Your task to perform on an android device: allow cookies in the chrome app Image 0: 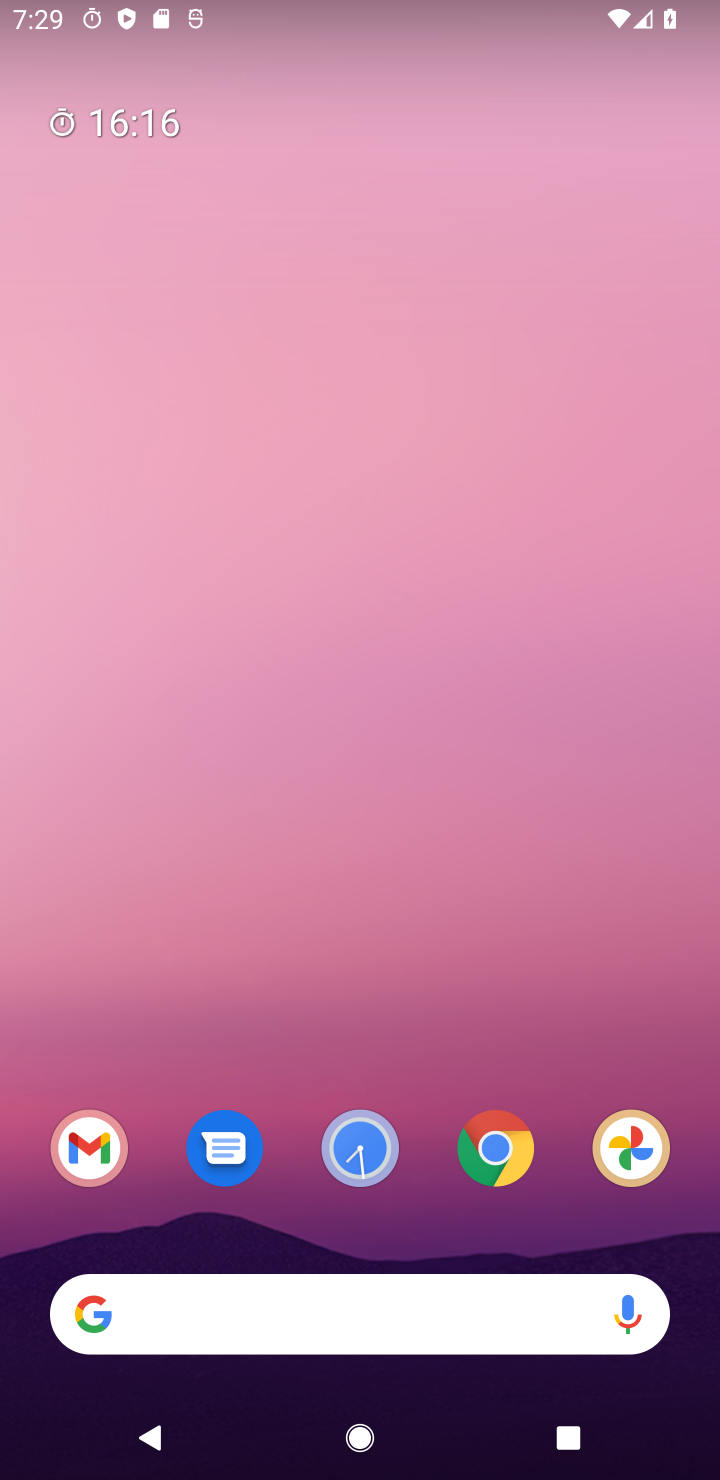
Step 0: press home button
Your task to perform on an android device: allow cookies in the chrome app Image 1: 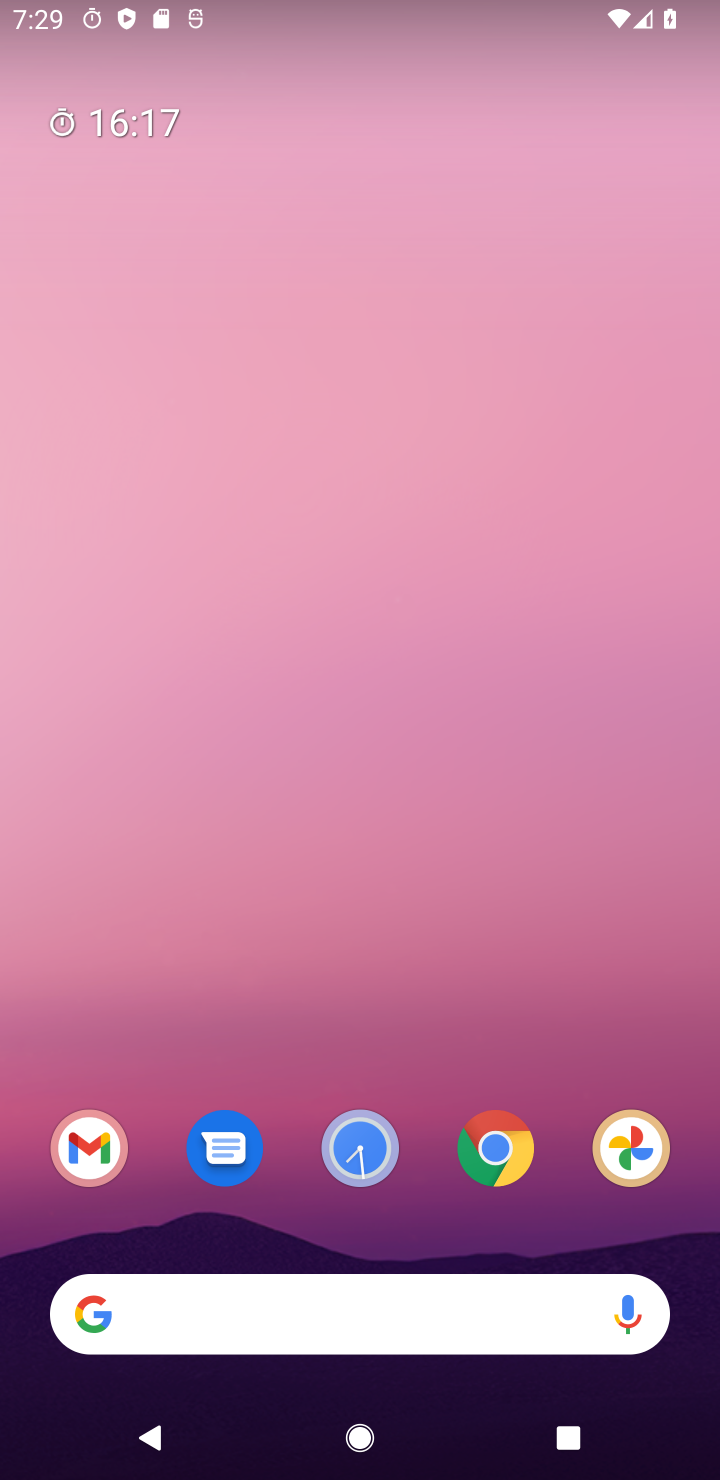
Step 1: drag from (362, 891) to (238, 271)
Your task to perform on an android device: allow cookies in the chrome app Image 2: 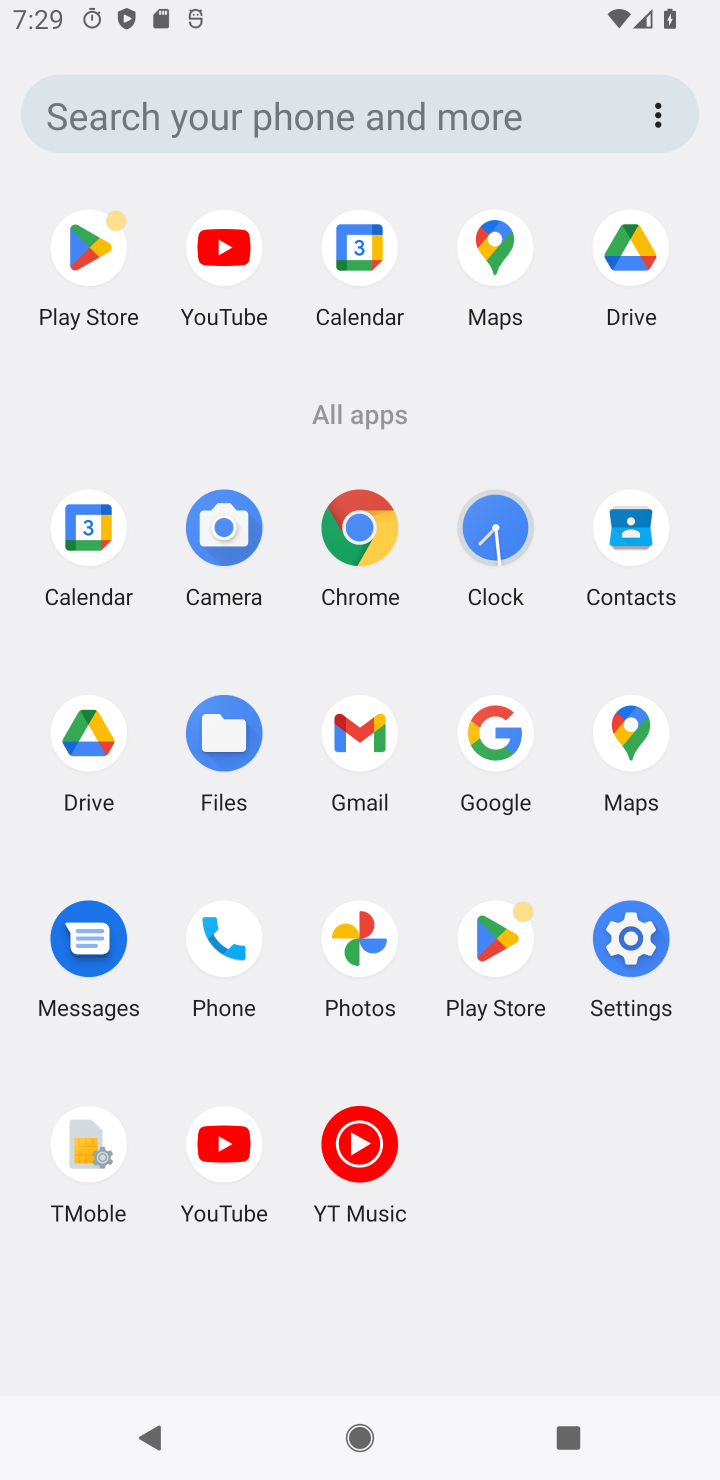
Step 2: click (354, 563)
Your task to perform on an android device: allow cookies in the chrome app Image 3: 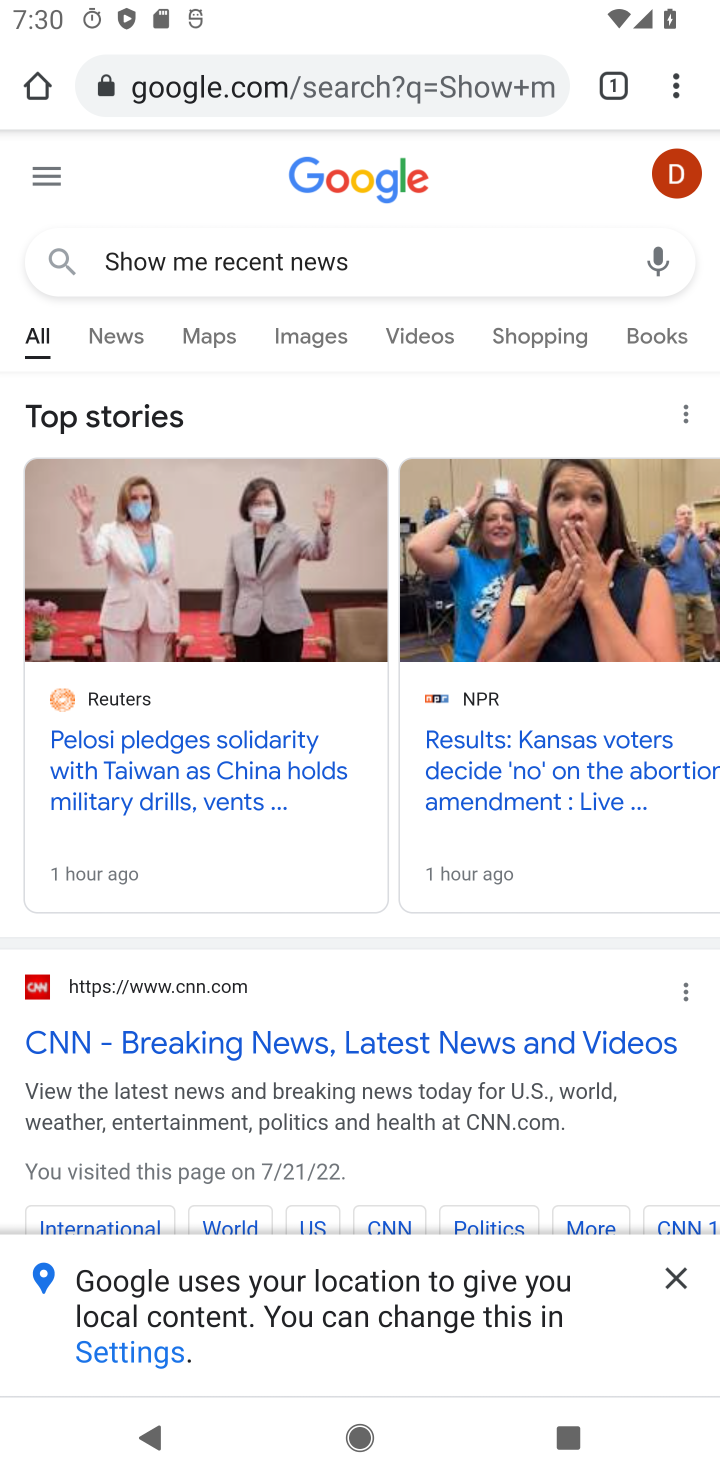
Step 3: drag from (681, 86) to (411, 1145)
Your task to perform on an android device: allow cookies in the chrome app Image 4: 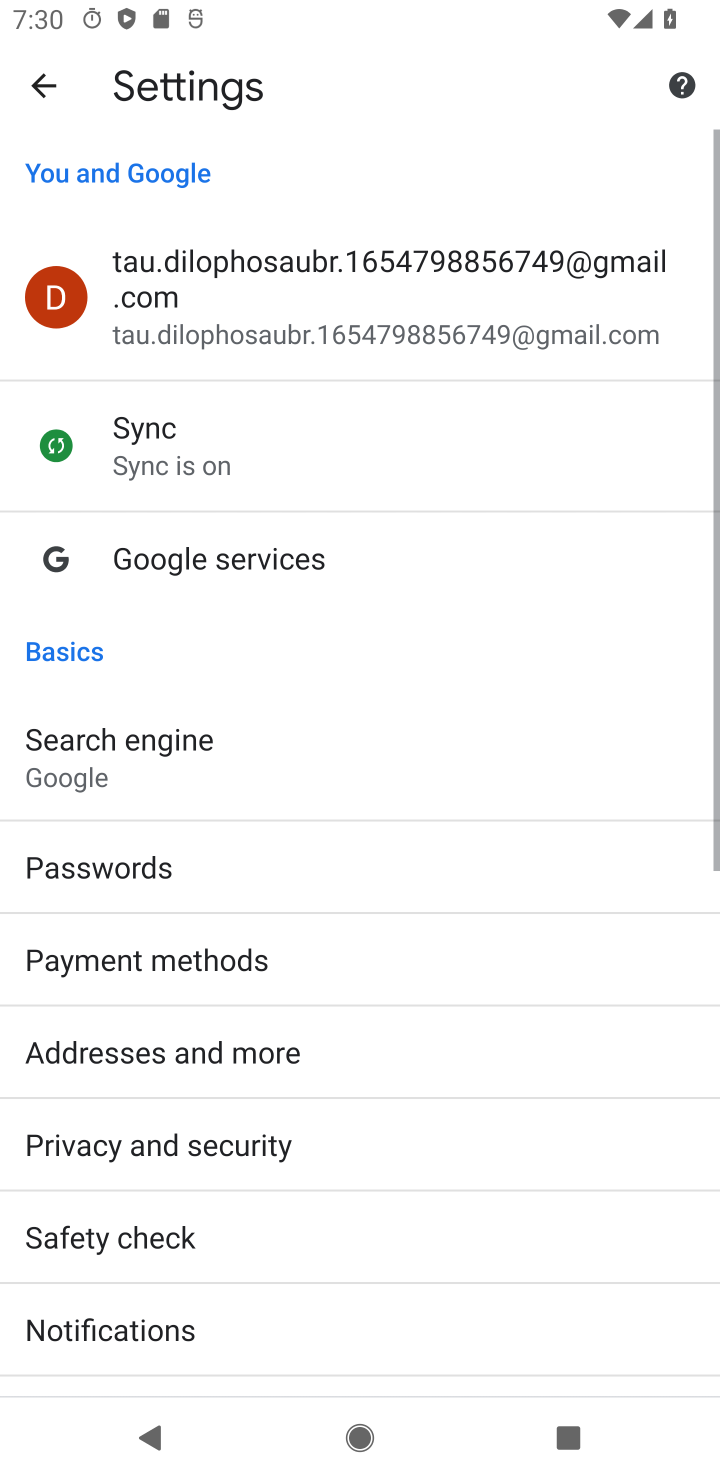
Step 4: drag from (321, 1115) to (243, 267)
Your task to perform on an android device: allow cookies in the chrome app Image 5: 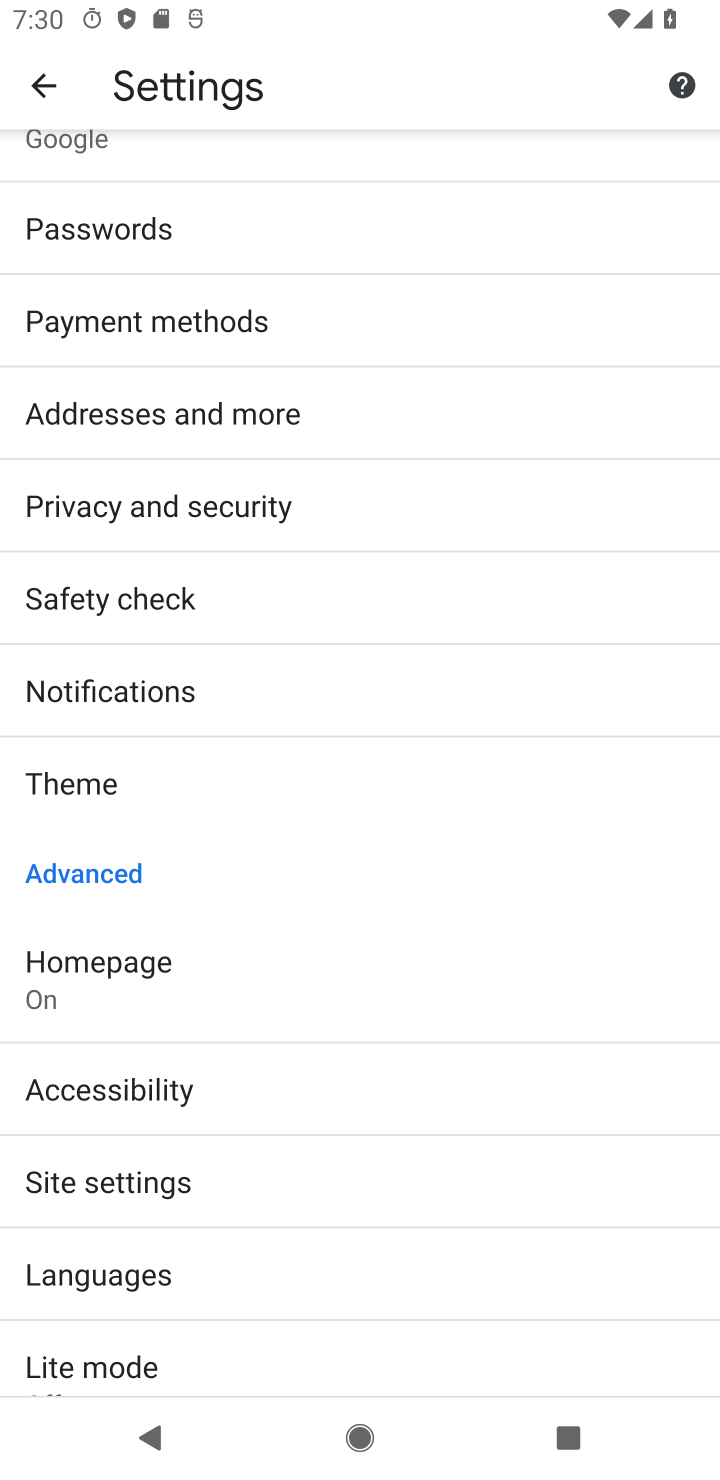
Step 5: click (98, 1166)
Your task to perform on an android device: allow cookies in the chrome app Image 6: 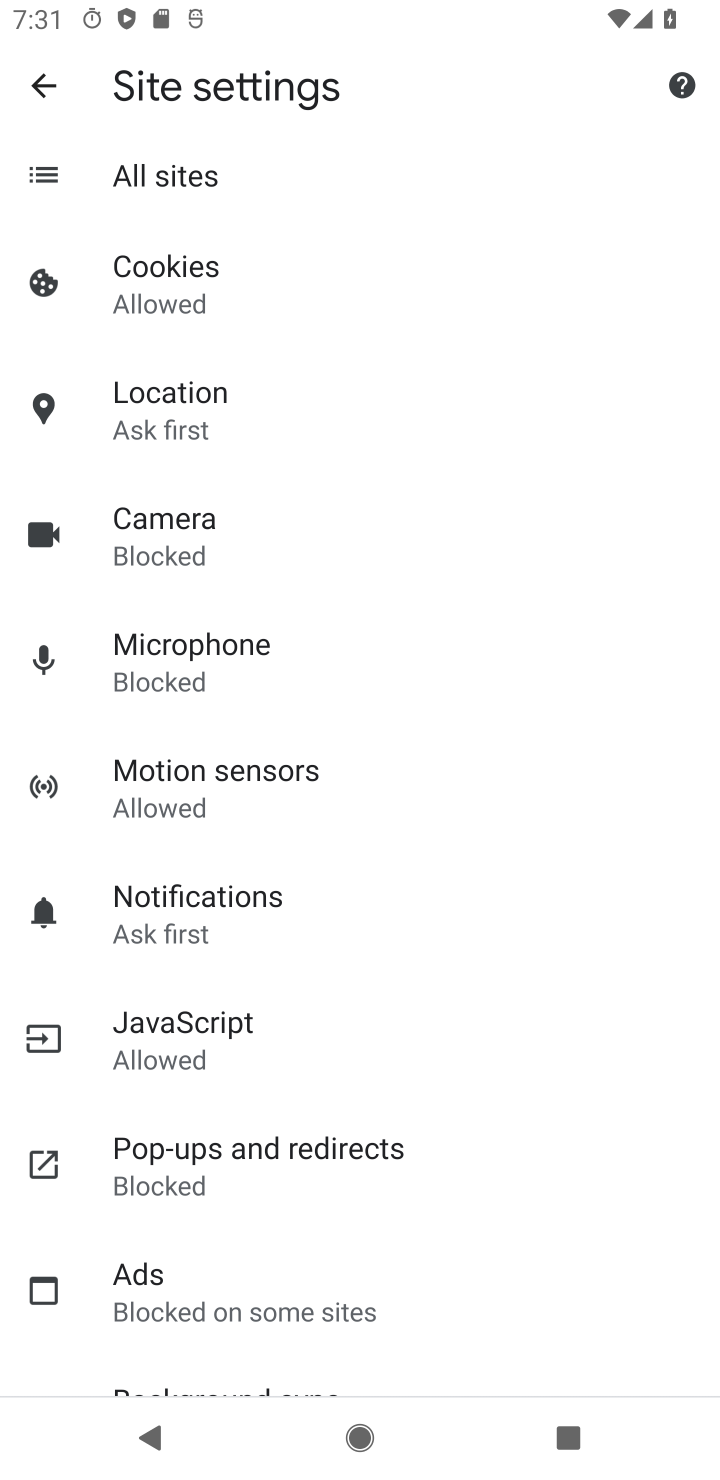
Step 6: click (182, 278)
Your task to perform on an android device: allow cookies in the chrome app Image 7: 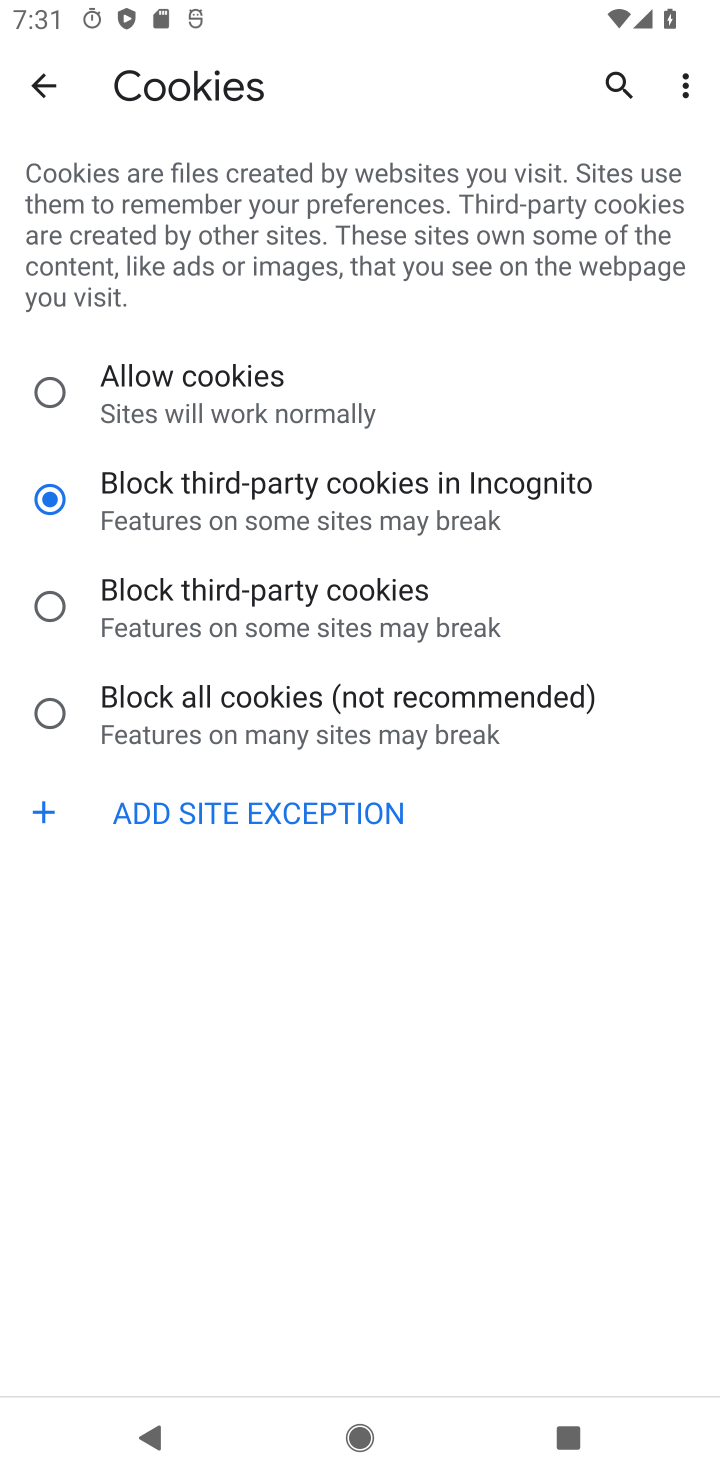
Step 7: click (256, 424)
Your task to perform on an android device: allow cookies in the chrome app Image 8: 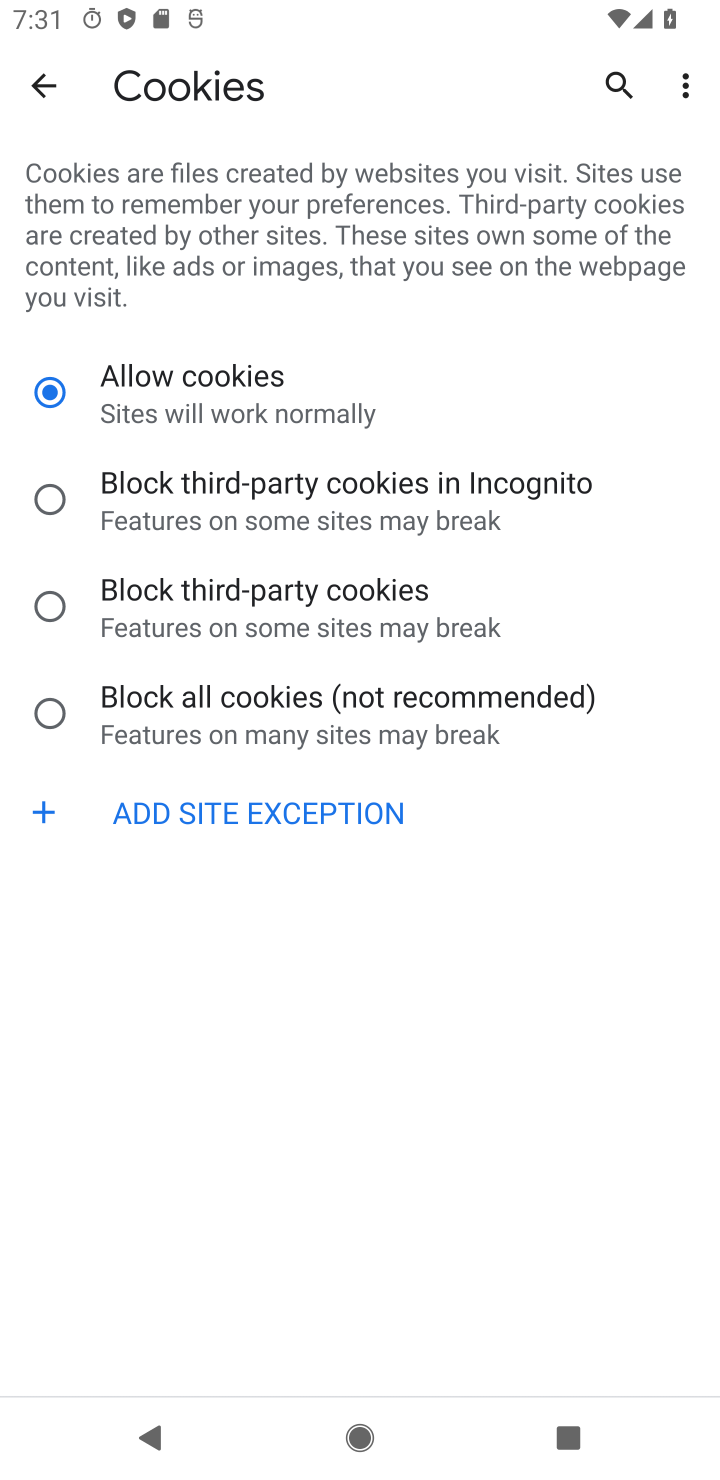
Step 8: task complete